Your task to perform on an android device: Go to Maps Image 0: 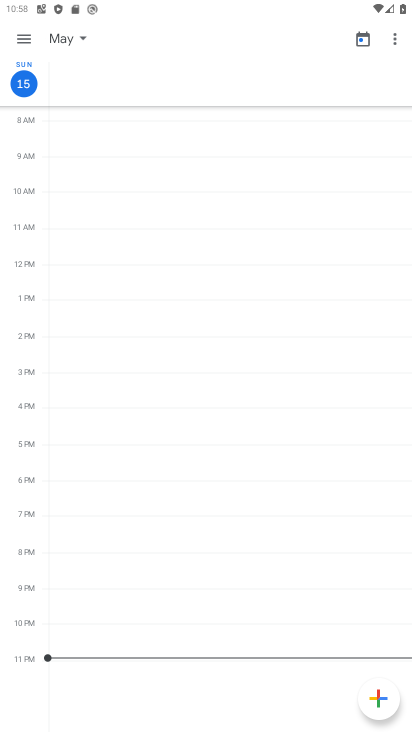
Step 0: press home button
Your task to perform on an android device: Go to Maps Image 1: 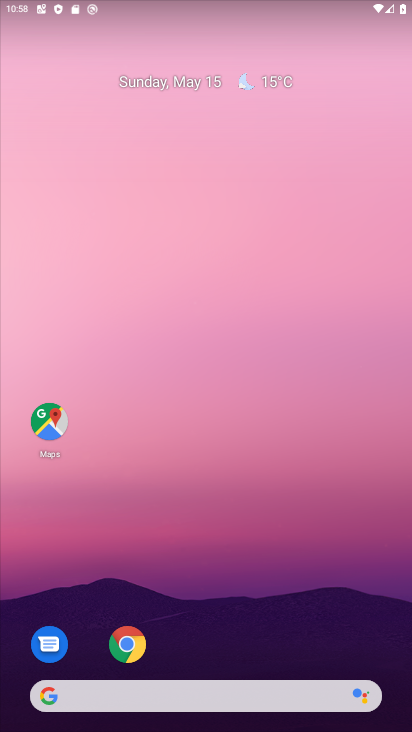
Step 1: click (53, 427)
Your task to perform on an android device: Go to Maps Image 2: 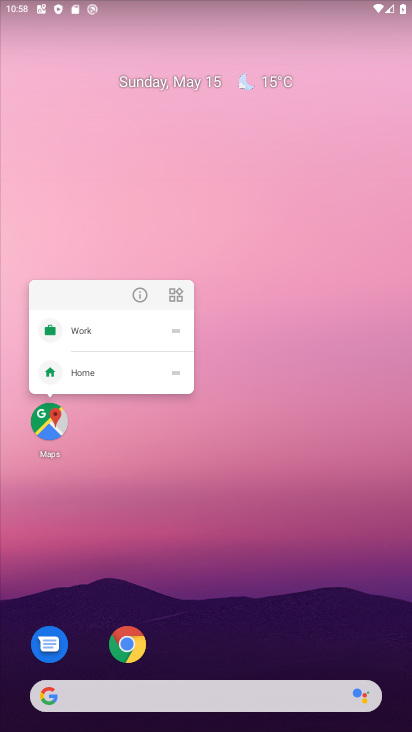
Step 2: click (54, 428)
Your task to perform on an android device: Go to Maps Image 3: 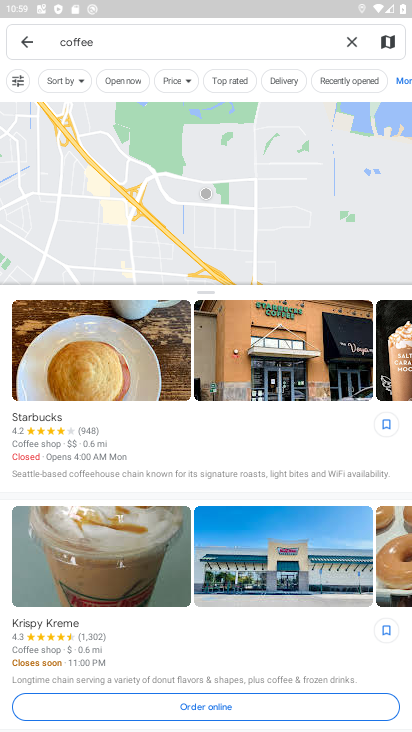
Step 3: task complete